Your task to perform on an android device: Show me productivity apps on the Play Store Image 0: 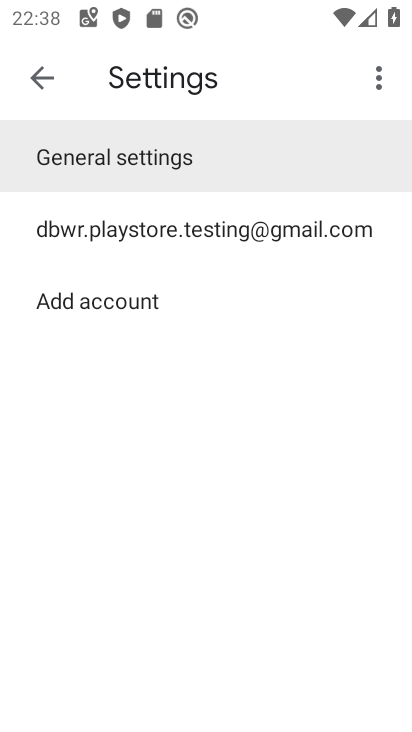
Step 0: press home button
Your task to perform on an android device: Show me productivity apps on the Play Store Image 1: 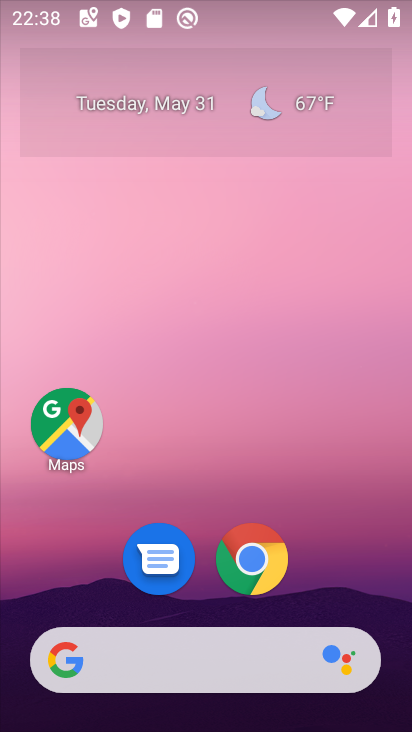
Step 1: drag from (346, 471) to (309, 0)
Your task to perform on an android device: Show me productivity apps on the Play Store Image 2: 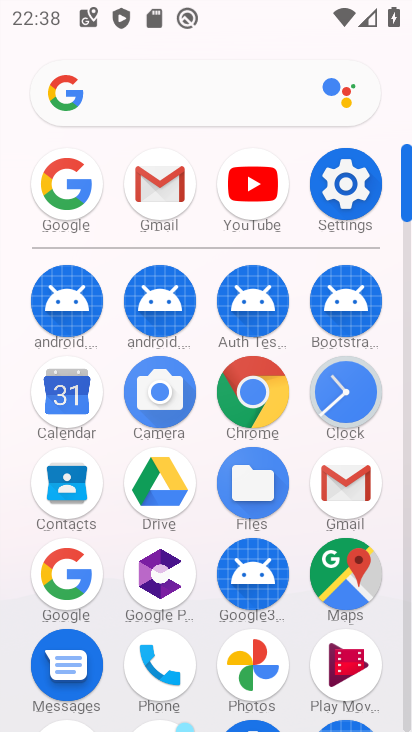
Step 2: drag from (106, 614) to (106, 462)
Your task to perform on an android device: Show me productivity apps on the Play Store Image 3: 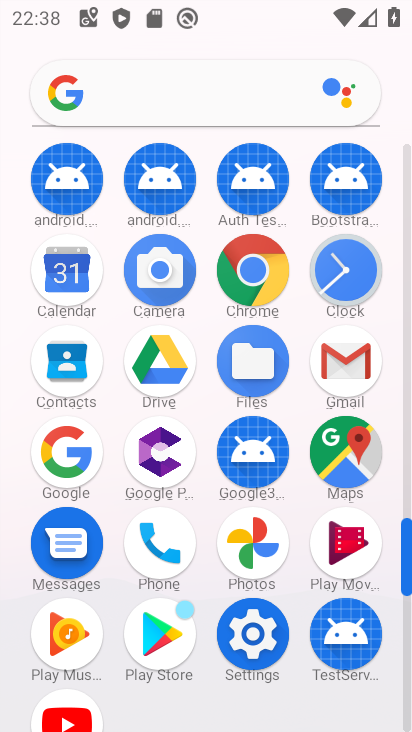
Step 3: click (166, 637)
Your task to perform on an android device: Show me productivity apps on the Play Store Image 4: 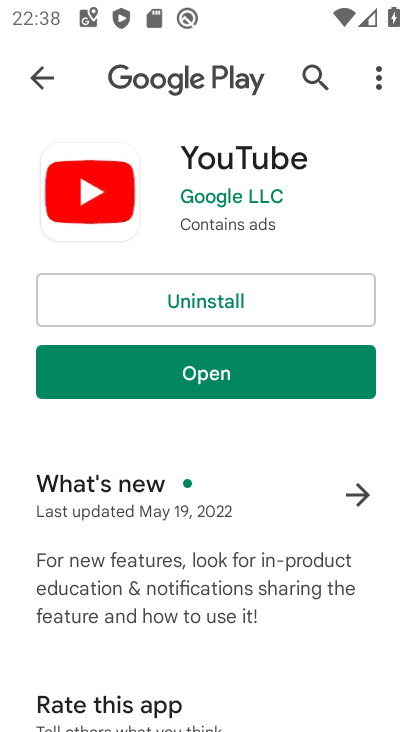
Step 4: press back button
Your task to perform on an android device: Show me productivity apps on the Play Store Image 5: 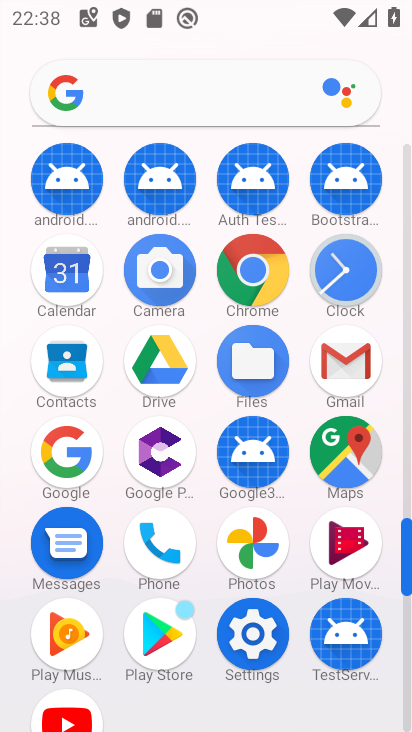
Step 5: click (164, 639)
Your task to perform on an android device: Show me productivity apps on the Play Store Image 6: 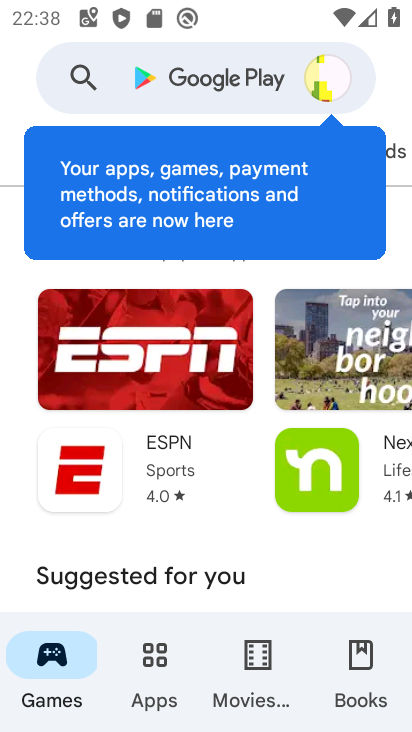
Step 6: click (149, 672)
Your task to perform on an android device: Show me productivity apps on the Play Store Image 7: 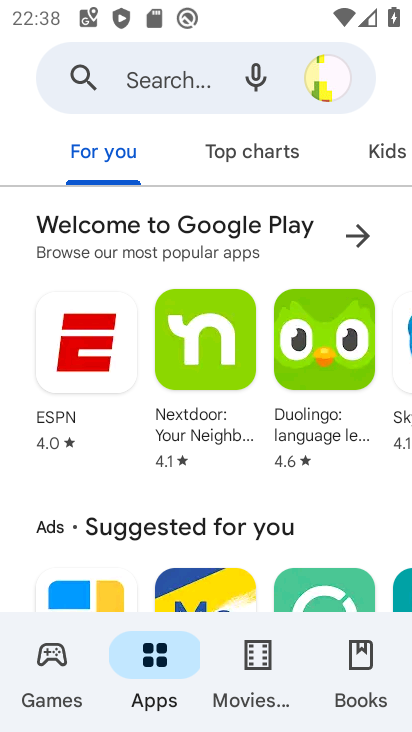
Step 7: drag from (375, 150) to (55, 144)
Your task to perform on an android device: Show me productivity apps on the Play Store Image 8: 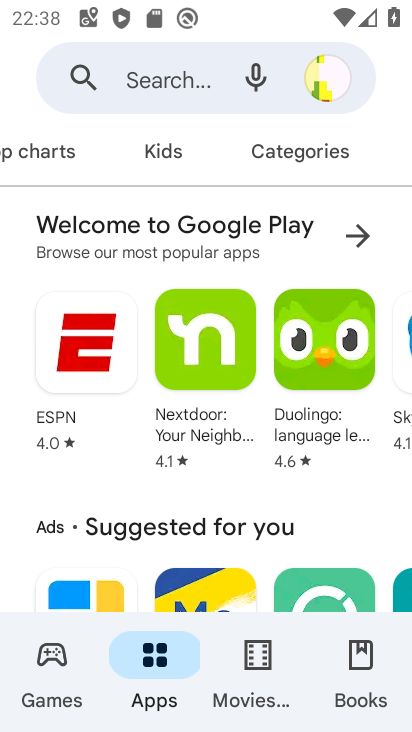
Step 8: click (306, 154)
Your task to perform on an android device: Show me productivity apps on the Play Store Image 9: 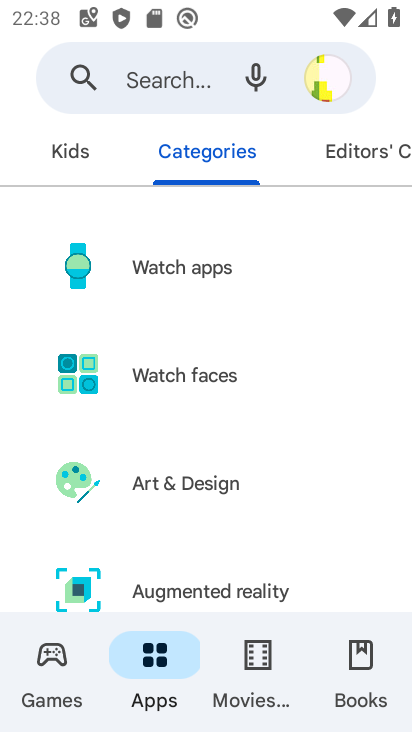
Step 9: drag from (306, 586) to (266, 74)
Your task to perform on an android device: Show me productivity apps on the Play Store Image 10: 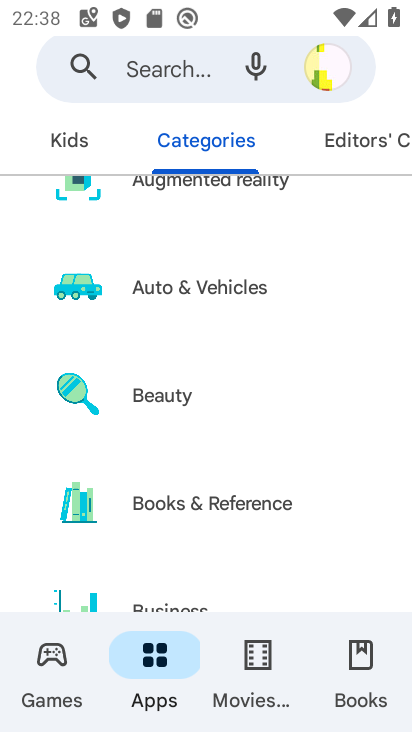
Step 10: drag from (312, 552) to (279, 32)
Your task to perform on an android device: Show me productivity apps on the Play Store Image 11: 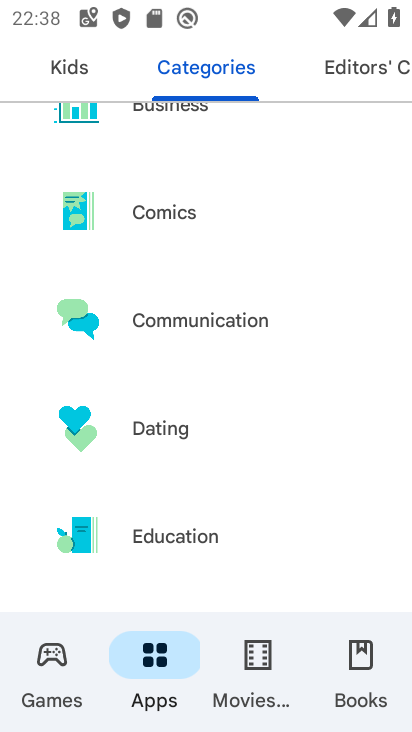
Step 11: drag from (300, 558) to (285, 6)
Your task to perform on an android device: Show me productivity apps on the Play Store Image 12: 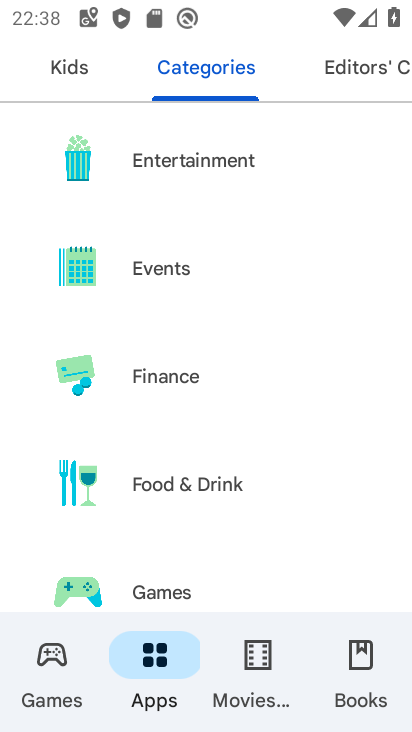
Step 12: drag from (259, 595) to (221, 74)
Your task to perform on an android device: Show me productivity apps on the Play Store Image 13: 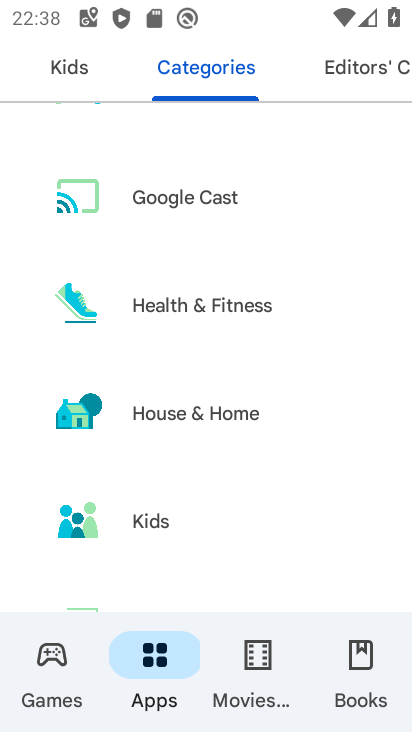
Step 13: drag from (247, 517) to (234, 31)
Your task to perform on an android device: Show me productivity apps on the Play Store Image 14: 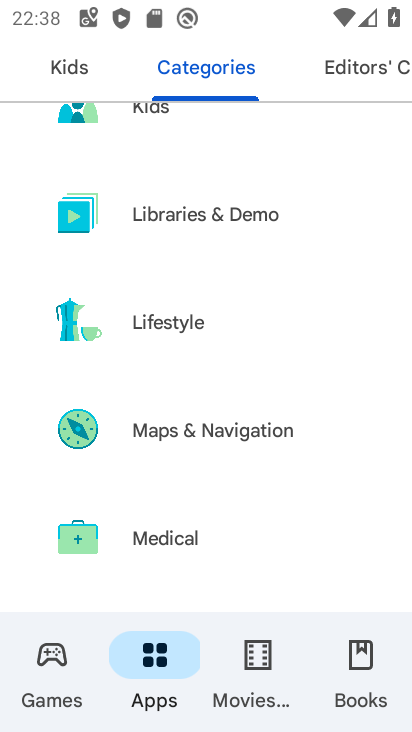
Step 14: drag from (222, 566) to (241, 97)
Your task to perform on an android device: Show me productivity apps on the Play Store Image 15: 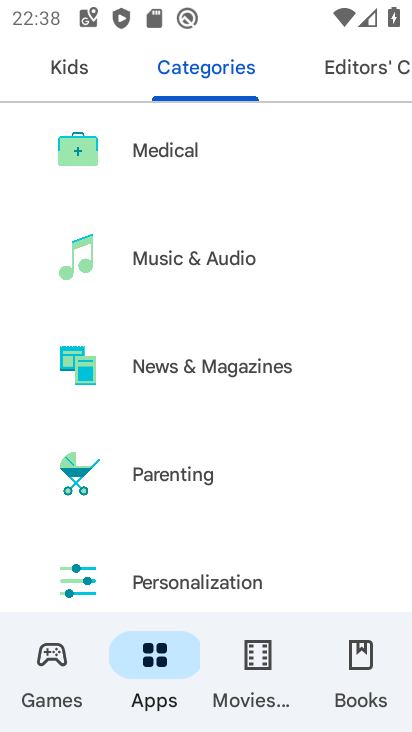
Step 15: drag from (333, 558) to (282, 157)
Your task to perform on an android device: Show me productivity apps on the Play Store Image 16: 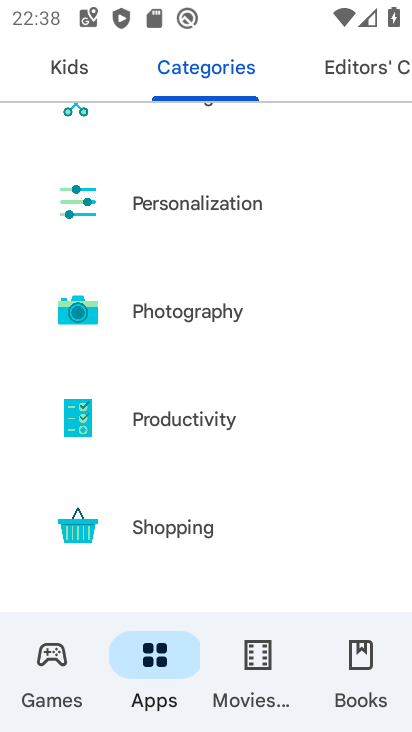
Step 16: click (194, 411)
Your task to perform on an android device: Show me productivity apps on the Play Store Image 17: 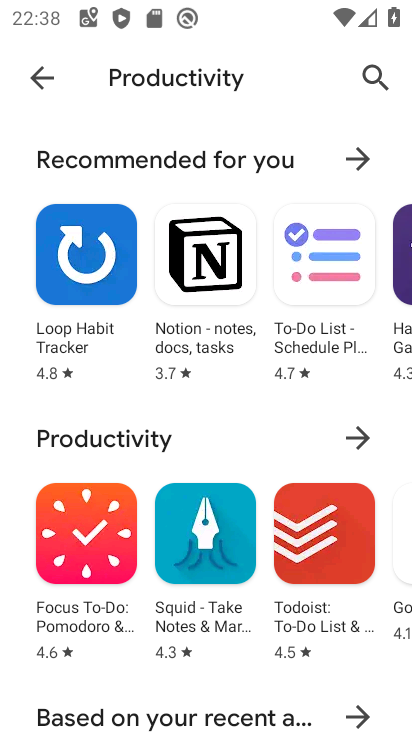
Step 17: task complete